Your task to perform on an android device: Go to Google maps Image 0: 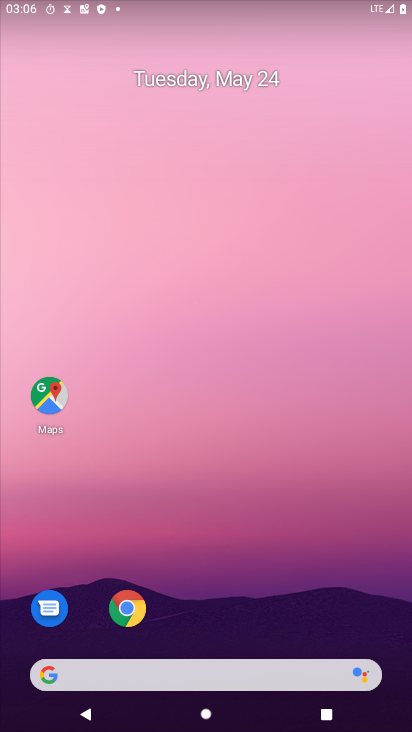
Step 0: drag from (266, 629) to (234, 209)
Your task to perform on an android device: Go to Google maps Image 1: 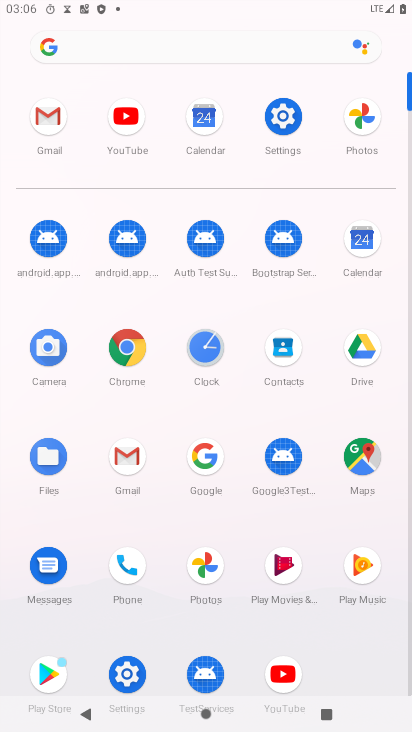
Step 1: click (368, 455)
Your task to perform on an android device: Go to Google maps Image 2: 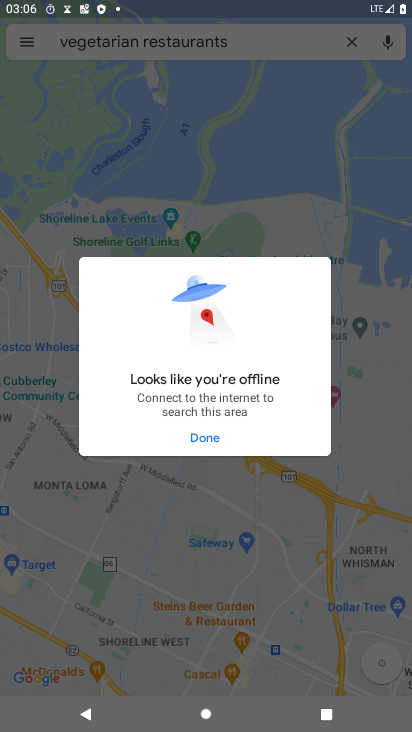
Step 2: task complete